Your task to perform on an android device: open app "NewsBreak: Local News & Alerts" Image 0: 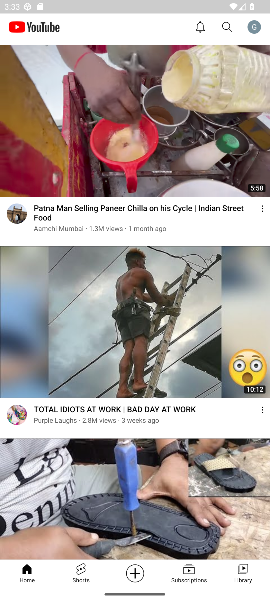
Step 0: press back button
Your task to perform on an android device: open app "NewsBreak: Local News & Alerts" Image 1: 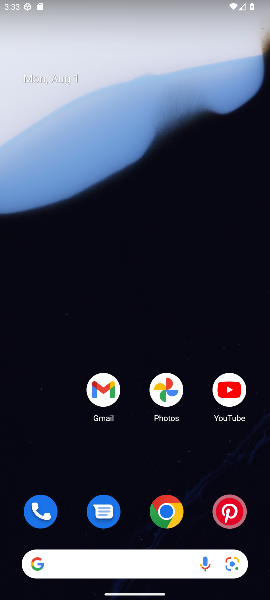
Step 1: press home button
Your task to perform on an android device: open app "NewsBreak: Local News & Alerts" Image 2: 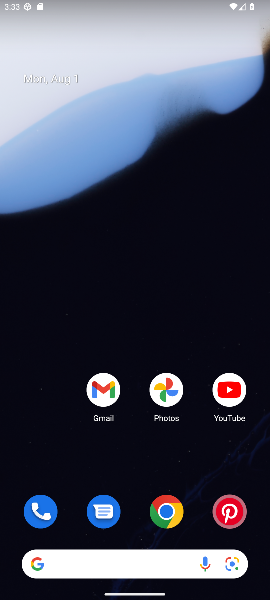
Step 2: drag from (116, 416) to (95, 100)
Your task to perform on an android device: open app "NewsBreak: Local News & Alerts" Image 3: 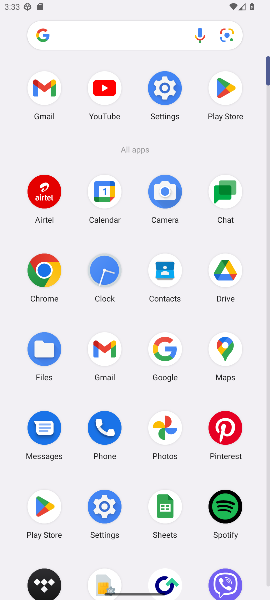
Step 3: click (226, 103)
Your task to perform on an android device: open app "NewsBreak: Local News & Alerts" Image 4: 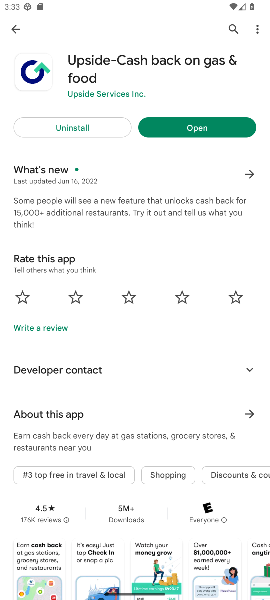
Step 4: click (20, 30)
Your task to perform on an android device: open app "NewsBreak: Local News & Alerts" Image 5: 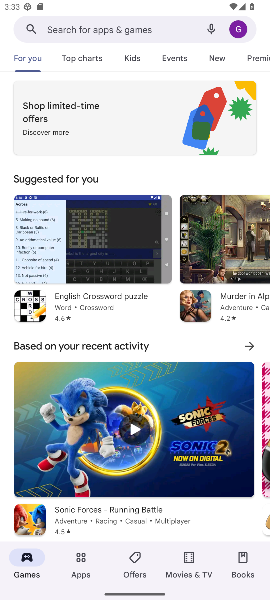
Step 5: click (110, 25)
Your task to perform on an android device: open app "NewsBreak: Local News & Alerts" Image 6: 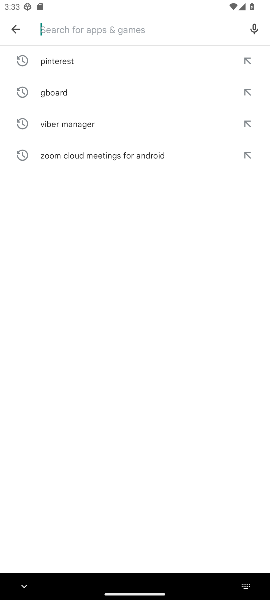
Step 6: type "NewsBreak: Local News & Alerts"
Your task to perform on an android device: open app "NewsBreak: Local News & Alerts" Image 7: 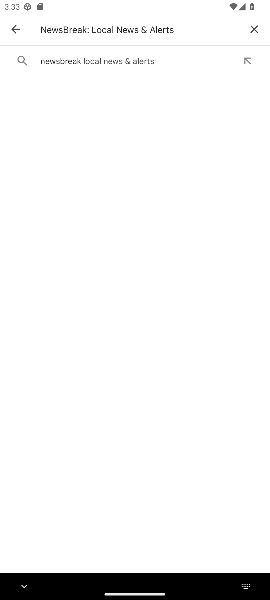
Step 7: click (149, 60)
Your task to perform on an android device: open app "NewsBreak: Local News & Alerts" Image 8: 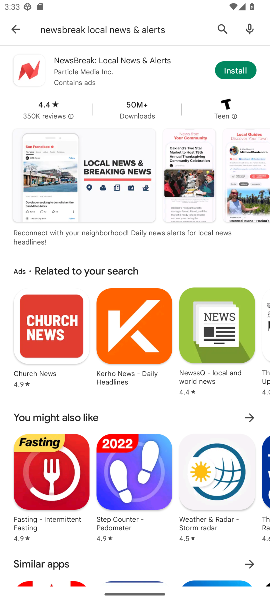
Step 8: click (226, 72)
Your task to perform on an android device: open app "NewsBreak: Local News & Alerts" Image 9: 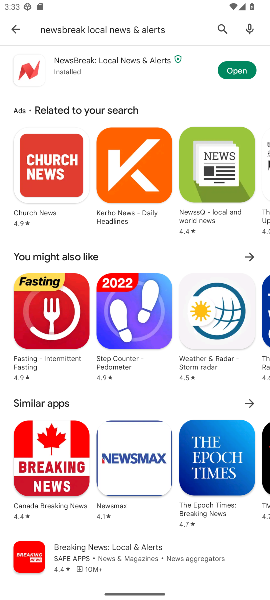
Step 9: click (235, 66)
Your task to perform on an android device: open app "NewsBreak: Local News & Alerts" Image 10: 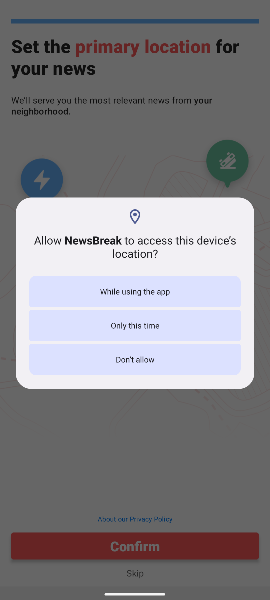
Step 10: task complete